Your task to perform on an android device: clear all cookies in the chrome app Image 0: 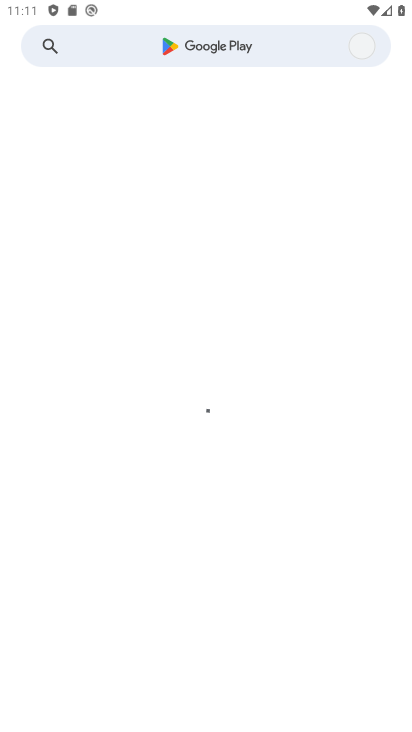
Step 0: press home button
Your task to perform on an android device: clear all cookies in the chrome app Image 1: 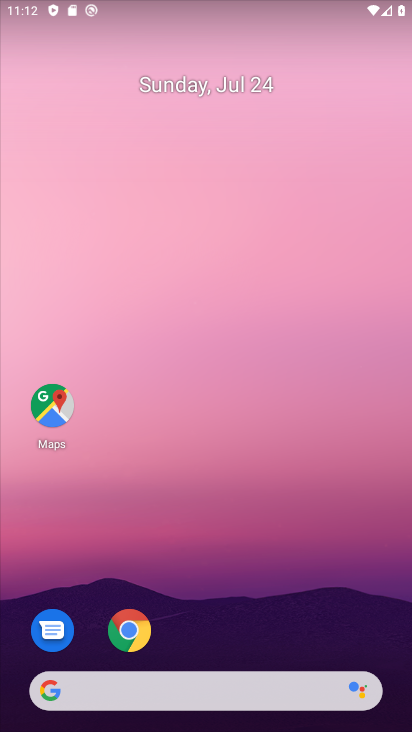
Step 1: click (130, 637)
Your task to perform on an android device: clear all cookies in the chrome app Image 2: 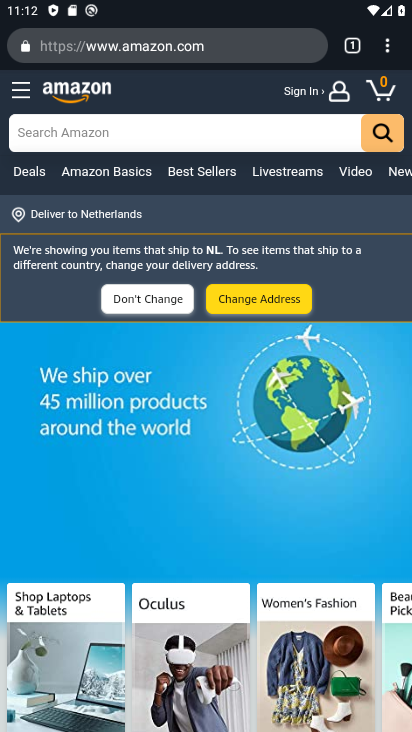
Step 2: click (381, 51)
Your task to perform on an android device: clear all cookies in the chrome app Image 3: 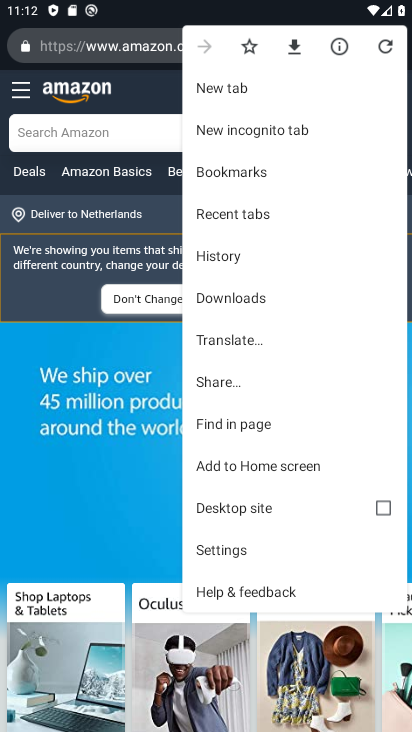
Step 3: click (214, 257)
Your task to perform on an android device: clear all cookies in the chrome app Image 4: 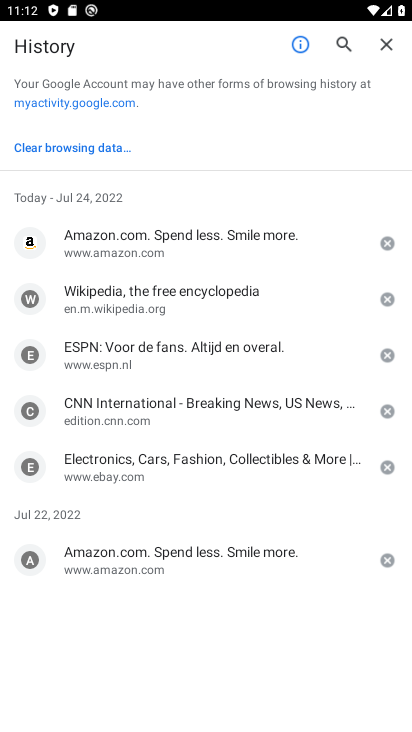
Step 4: click (103, 156)
Your task to perform on an android device: clear all cookies in the chrome app Image 5: 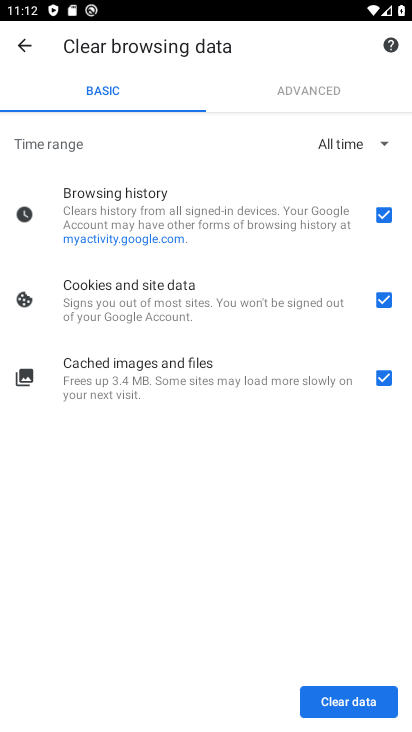
Step 5: click (385, 216)
Your task to perform on an android device: clear all cookies in the chrome app Image 6: 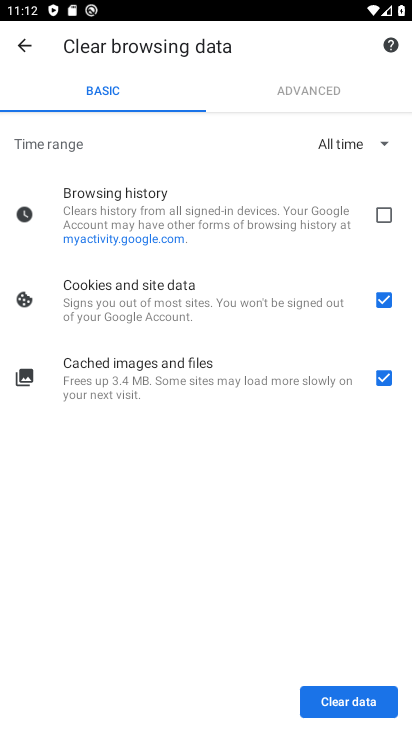
Step 6: click (389, 385)
Your task to perform on an android device: clear all cookies in the chrome app Image 7: 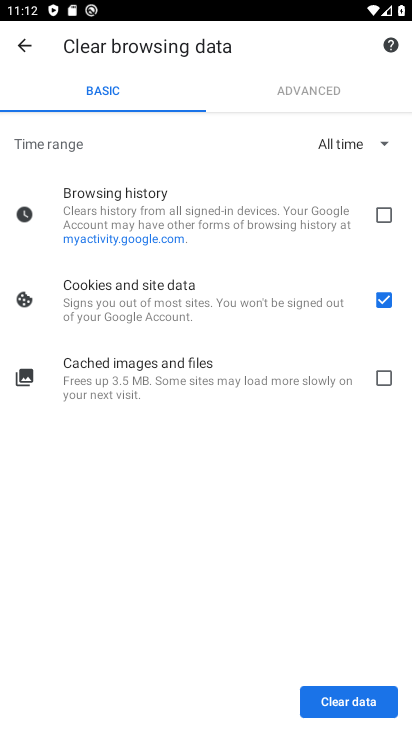
Step 7: click (331, 701)
Your task to perform on an android device: clear all cookies in the chrome app Image 8: 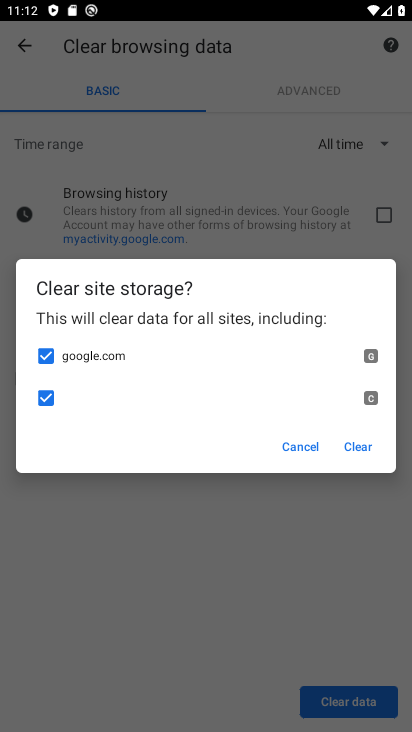
Step 8: click (356, 458)
Your task to perform on an android device: clear all cookies in the chrome app Image 9: 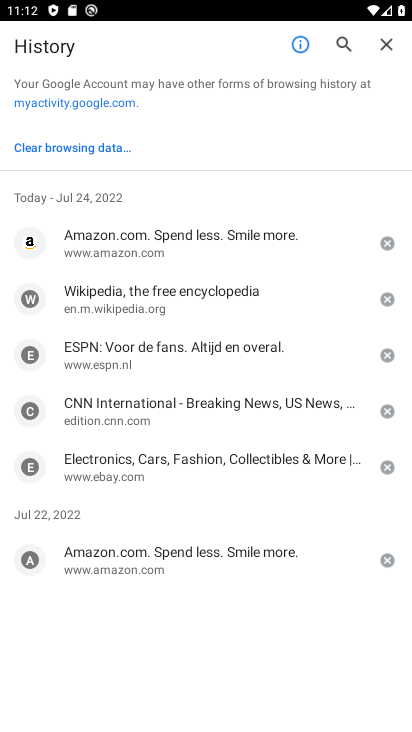
Step 9: task complete